Your task to perform on an android device: turn on sleep mode Image 0: 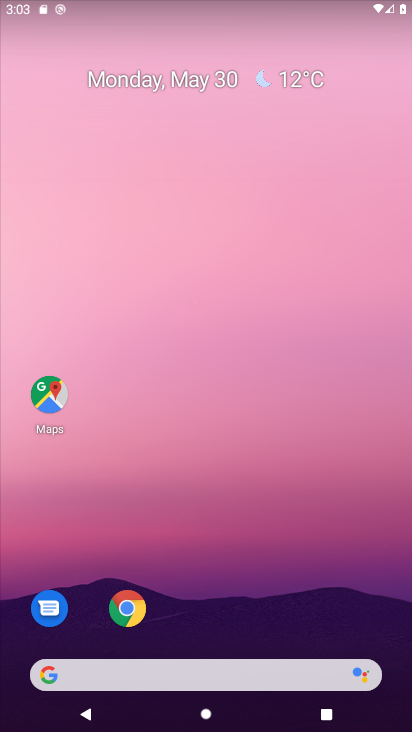
Step 0: drag from (298, 571) to (206, 33)
Your task to perform on an android device: turn on sleep mode Image 1: 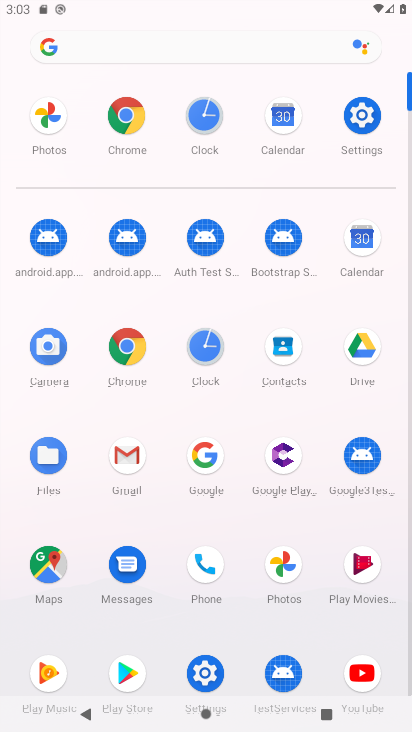
Step 1: click (361, 121)
Your task to perform on an android device: turn on sleep mode Image 2: 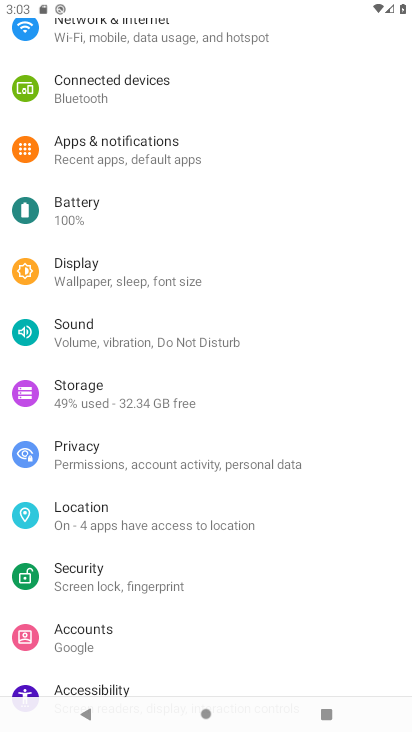
Step 2: click (185, 260)
Your task to perform on an android device: turn on sleep mode Image 3: 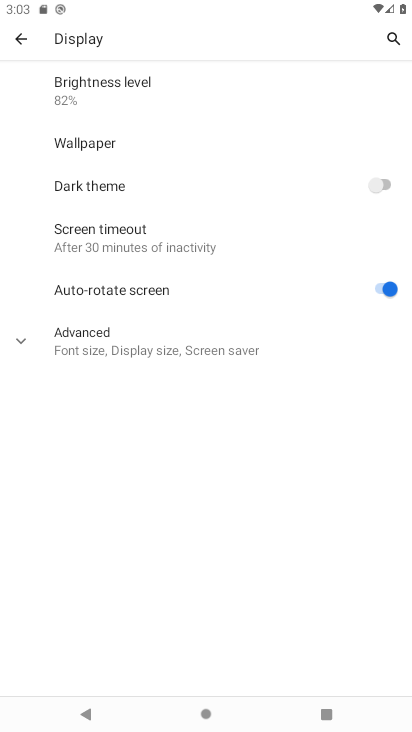
Step 3: task complete